Your task to perform on an android device: Go to eBay Image 0: 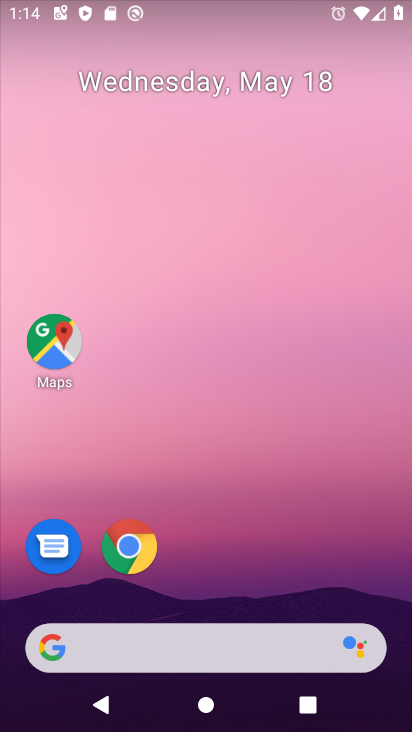
Step 0: drag from (185, 661) to (295, 186)
Your task to perform on an android device: Go to eBay Image 1: 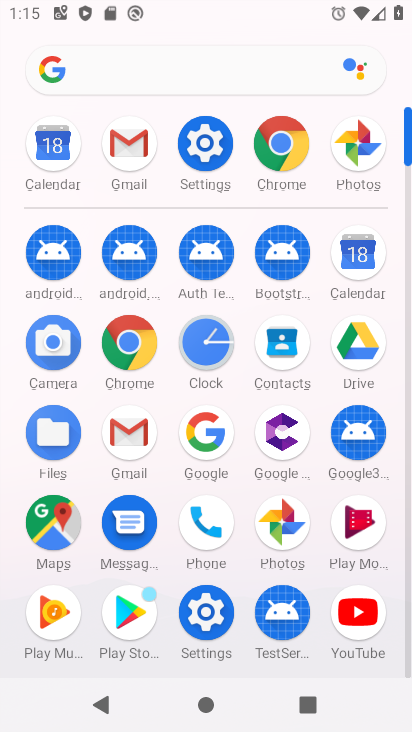
Step 1: click (281, 176)
Your task to perform on an android device: Go to eBay Image 2: 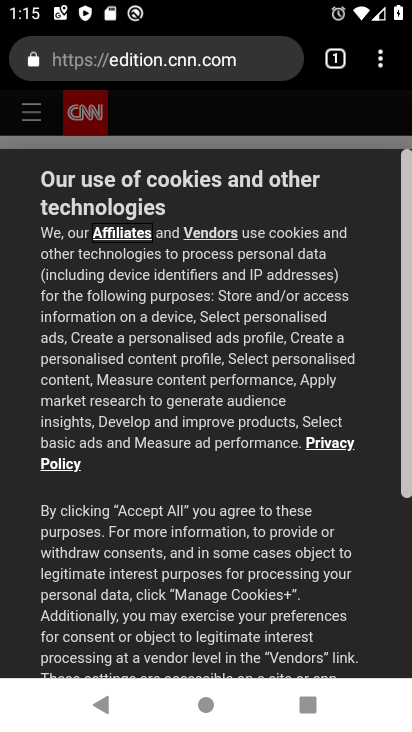
Step 2: click (176, 45)
Your task to perform on an android device: Go to eBay Image 3: 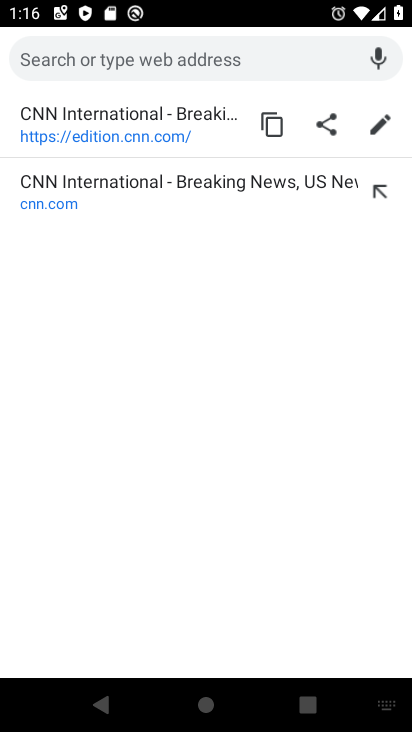
Step 3: type "ebay"
Your task to perform on an android device: Go to eBay Image 4: 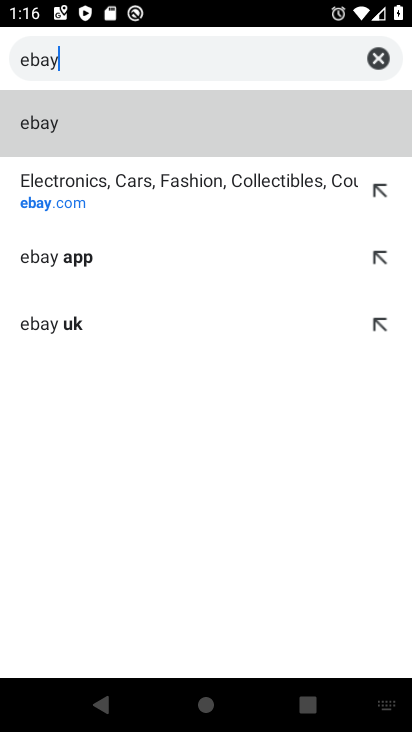
Step 4: click (131, 192)
Your task to perform on an android device: Go to eBay Image 5: 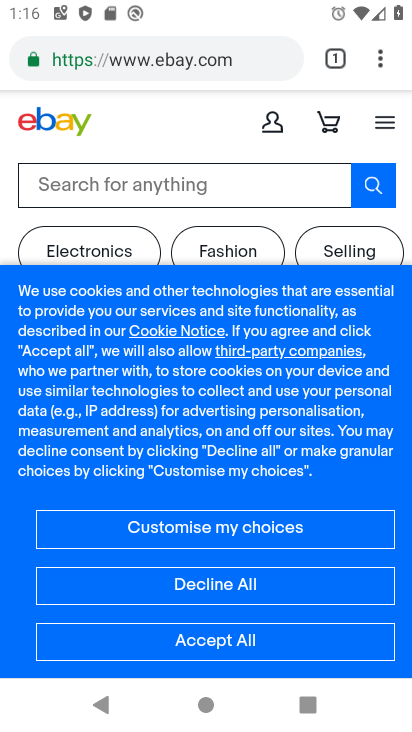
Step 5: task complete